Your task to perform on an android device: Search for seafood restaurants on Google Maps Image 0: 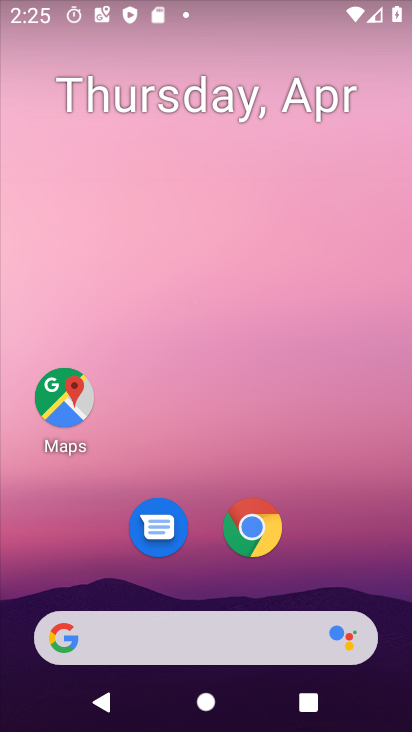
Step 0: click (60, 405)
Your task to perform on an android device: Search for seafood restaurants on Google Maps Image 1: 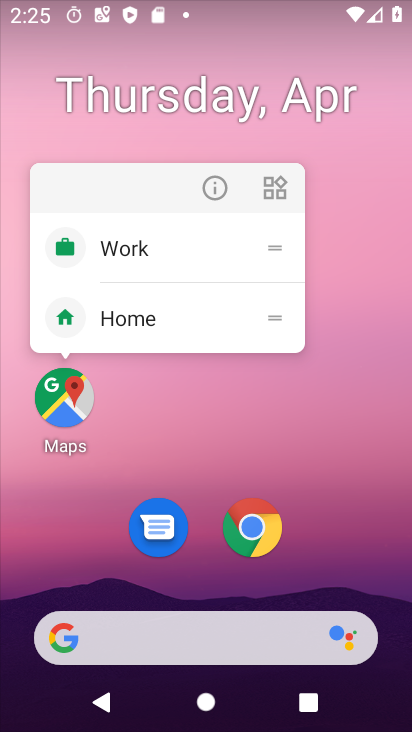
Step 1: click (65, 392)
Your task to perform on an android device: Search for seafood restaurants on Google Maps Image 2: 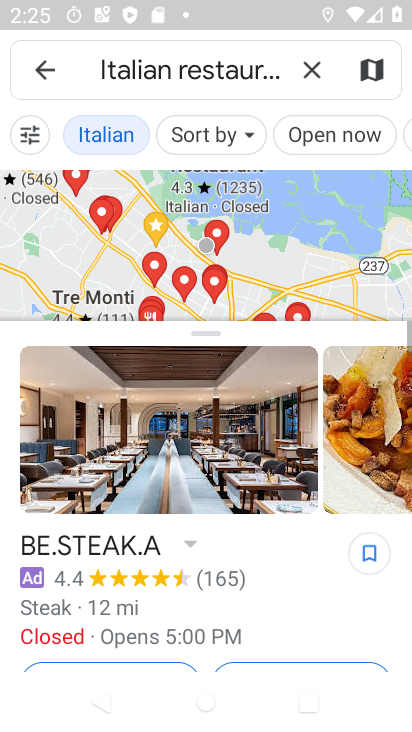
Step 2: click (181, 71)
Your task to perform on an android device: Search for seafood restaurants on Google Maps Image 3: 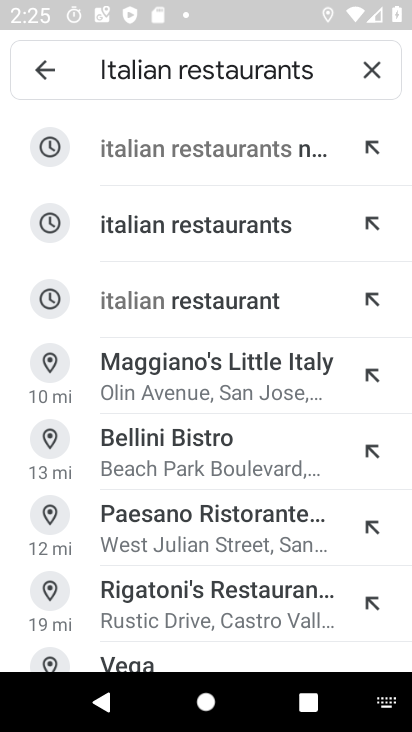
Step 3: click (367, 68)
Your task to perform on an android device: Search for seafood restaurants on Google Maps Image 4: 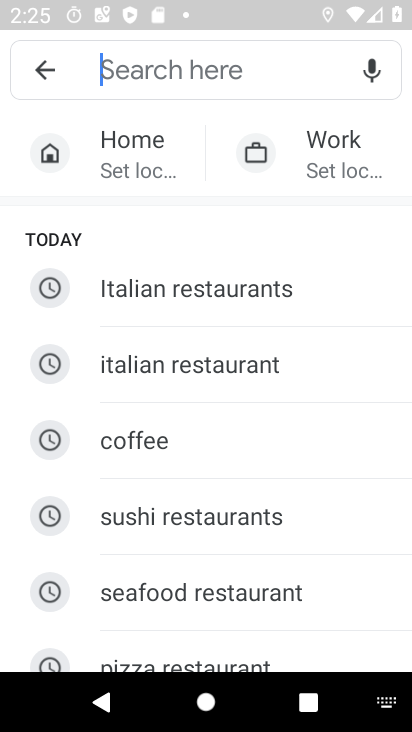
Step 4: type "seafood restaurants"
Your task to perform on an android device: Search for seafood restaurants on Google Maps Image 5: 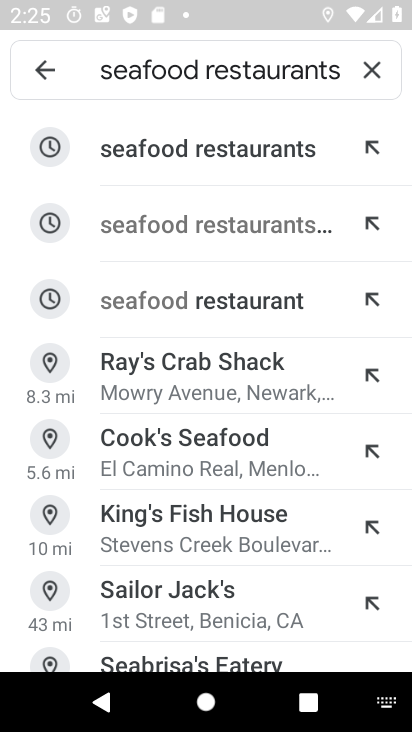
Step 5: click (256, 147)
Your task to perform on an android device: Search for seafood restaurants on Google Maps Image 6: 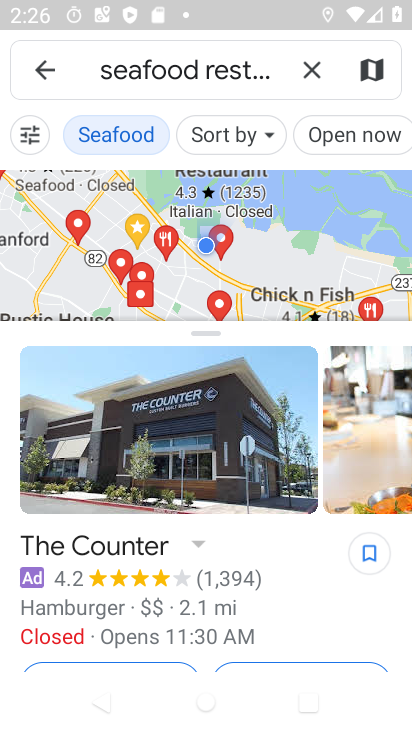
Step 6: task complete